Your task to perform on an android device: turn off improve location accuracy Image 0: 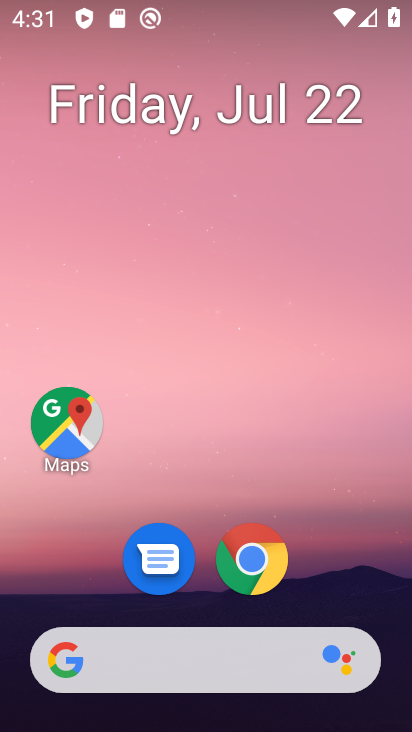
Step 0: drag from (55, 541) to (219, 102)
Your task to perform on an android device: turn off improve location accuracy Image 1: 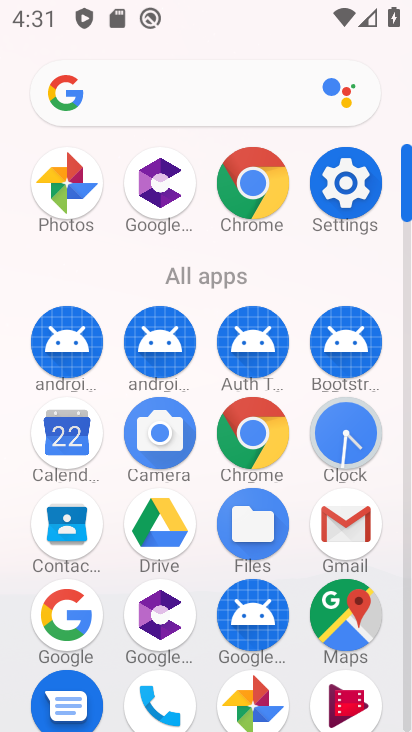
Step 1: click (342, 174)
Your task to perform on an android device: turn off improve location accuracy Image 2: 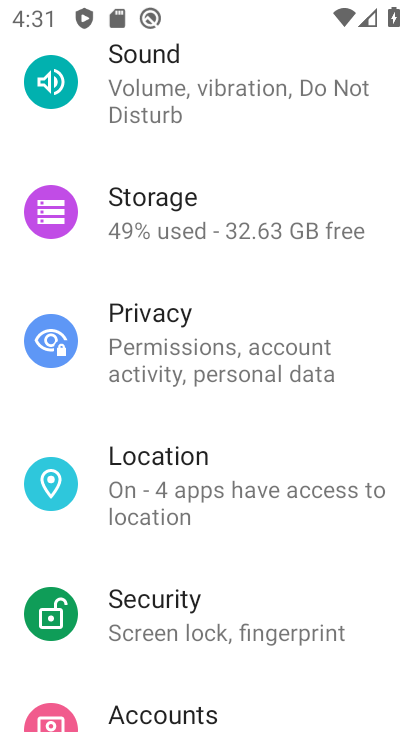
Step 2: click (150, 471)
Your task to perform on an android device: turn off improve location accuracy Image 3: 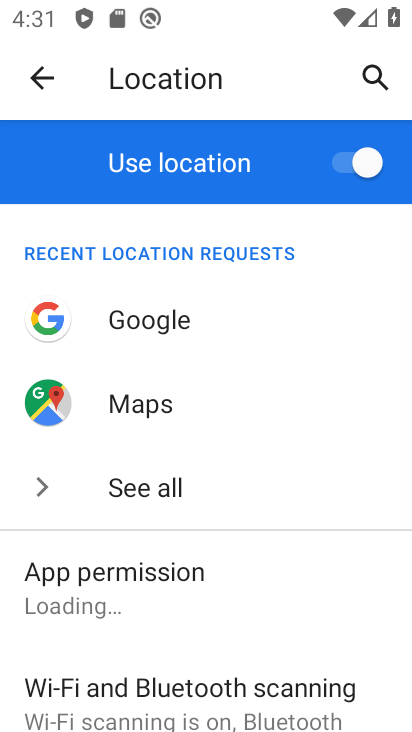
Step 3: drag from (173, 672) to (257, 160)
Your task to perform on an android device: turn off improve location accuracy Image 4: 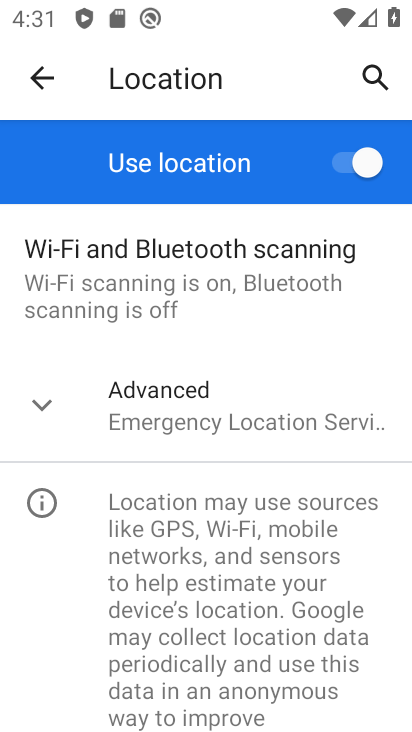
Step 4: click (147, 415)
Your task to perform on an android device: turn off improve location accuracy Image 5: 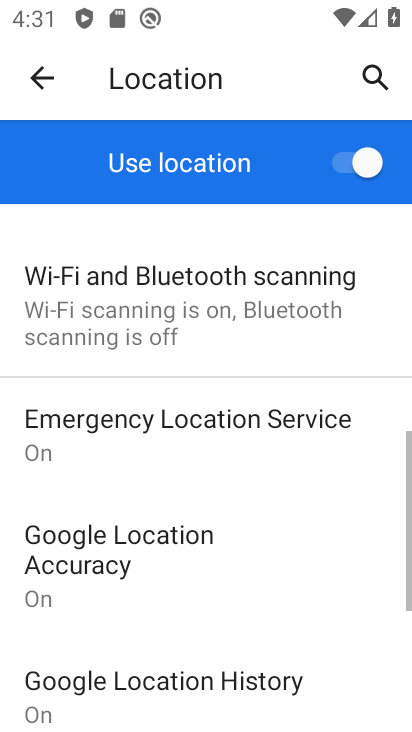
Step 5: click (114, 532)
Your task to perform on an android device: turn off improve location accuracy Image 6: 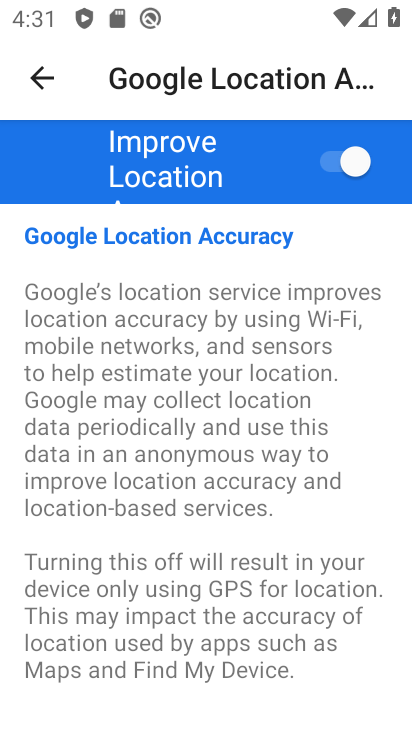
Step 6: click (348, 159)
Your task to perform on an android device: turn off improve location accuracy Image 7: 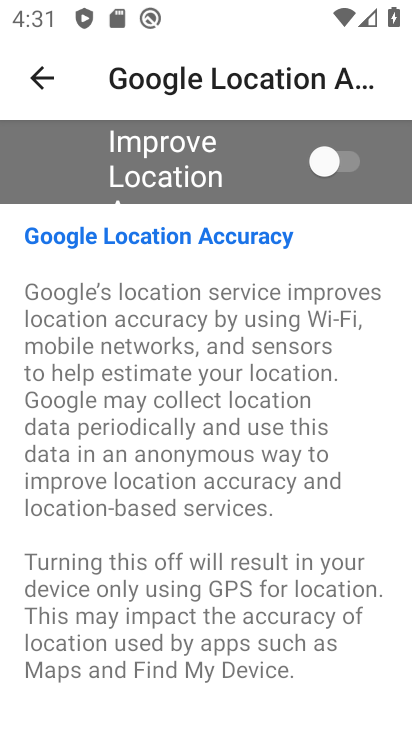
Step 7: task complete